Your task to perform on an android device: What's the weather going to be this weekend? Image 0: 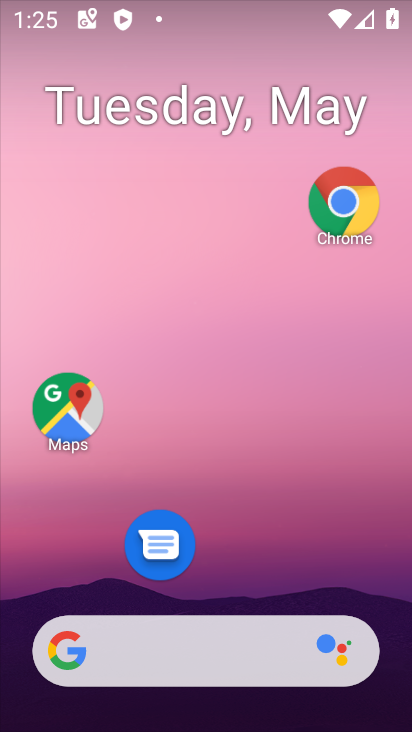
Step 0: click (149, 661)
Your task to perform on an android device: What's the weather going to be this weekend? Image 1: 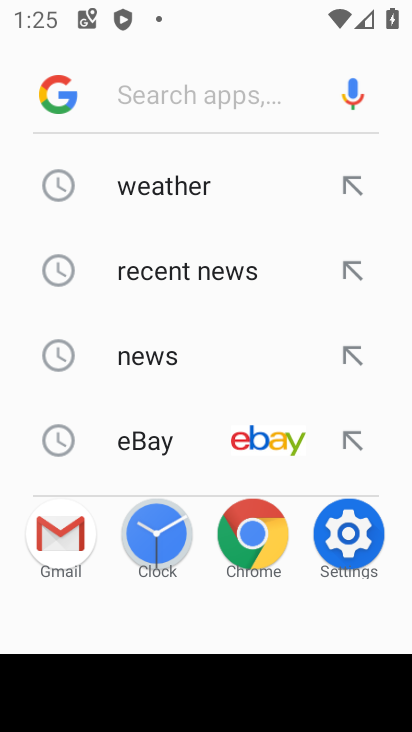
Step 1: click (155, 207)
Your task to perform on an android device: What's the weather going to be this weekend? Image 2: 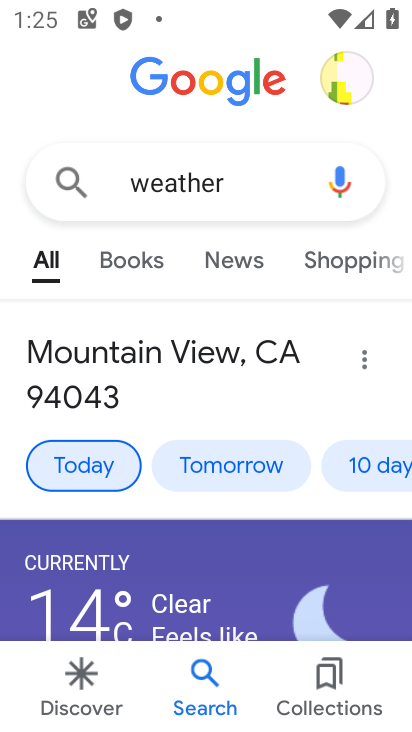
Step 2: click (381, 476)
Your task to perform on an android device: What's the weather going to be this weekend? Image 3: 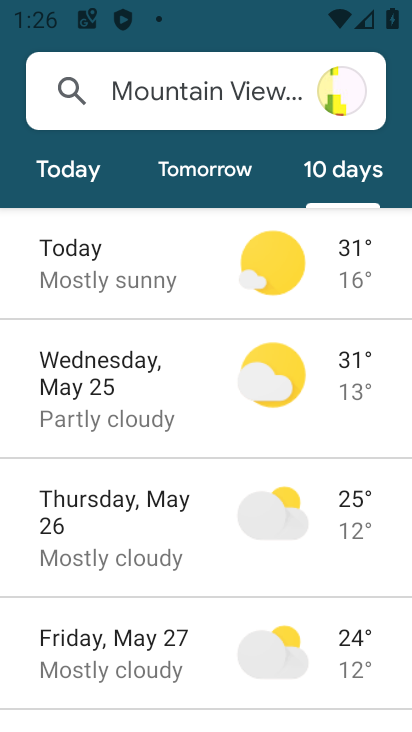
Step 3: task complete